Your task to perform on an android device: delete browsing data in the chrome app Image 0: 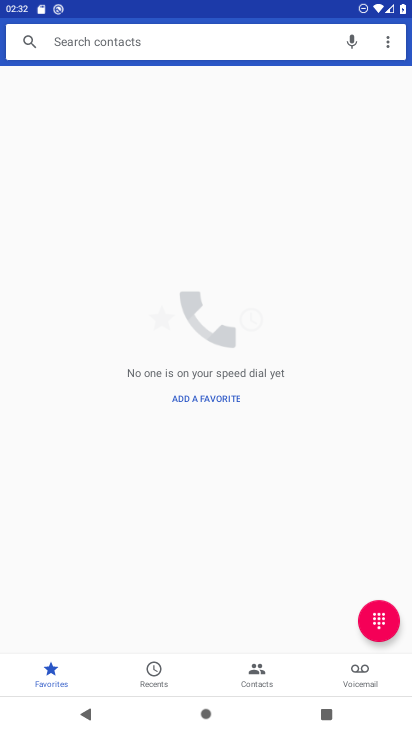
Step 0: press home button
Your task to perform on an android device: delete browsing data in the chrome app Image 1: 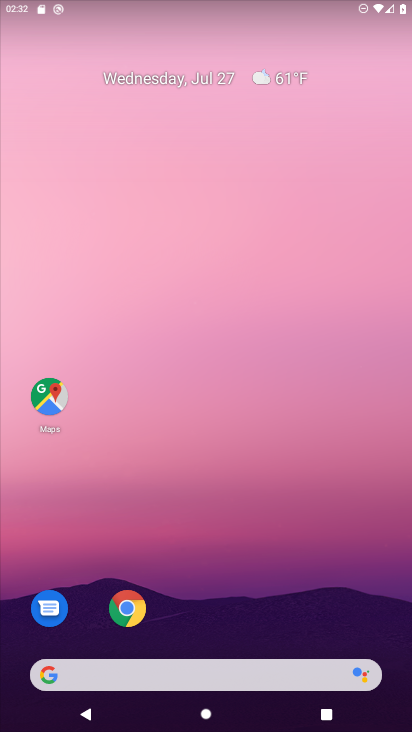
Step 1: drag from (241, 609) to (177, 50)
Your task to perform on an android device: delete browsing data in the chrome app Image 2: 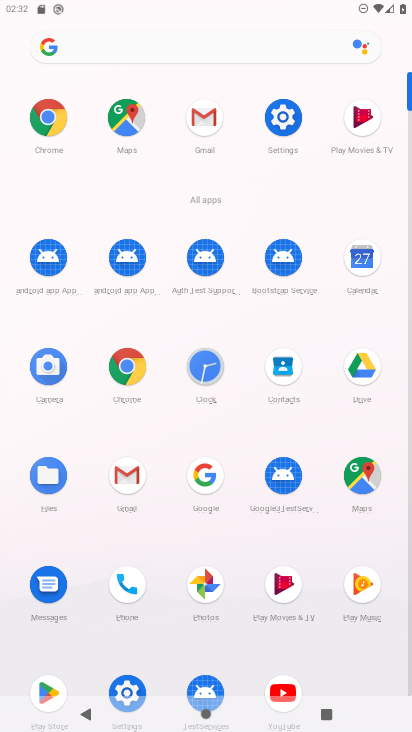
Step 2: click (38, 113)
Your task to perform on an android device: delete browsing data in the chrome app Image 3: 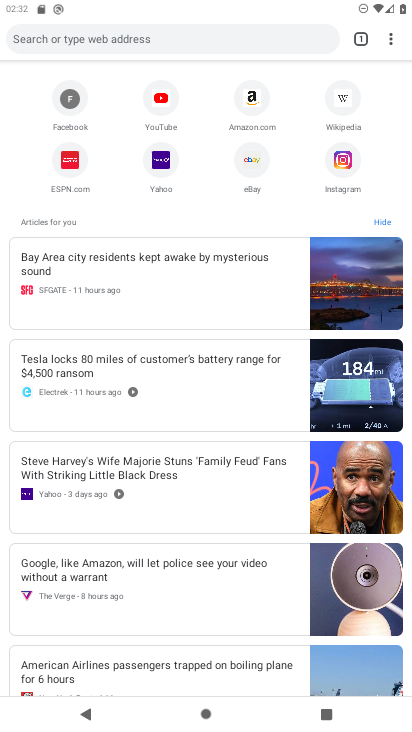
Step 3: click (396, 45)
Your task to perform on an android device: delete browsing data in the chrome app Image 4: 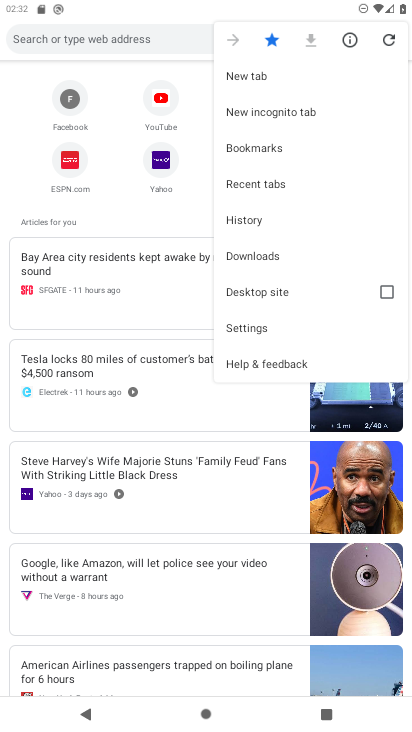
Step 4: click (288, 219)
Your task to perform on an android device: delete browsing data in the chrome app Image 5: 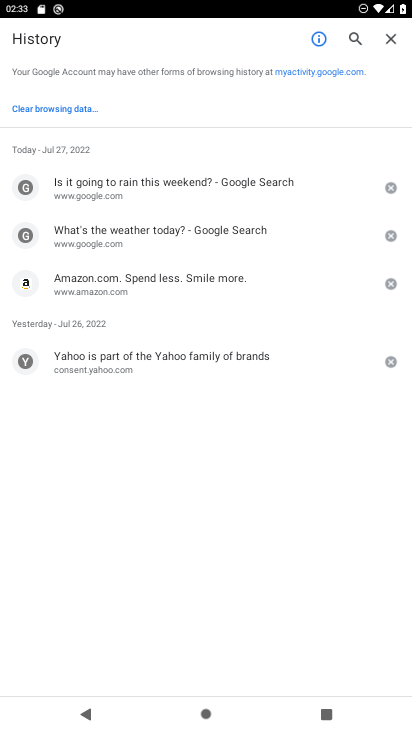
Step 5: click (34, 111)
Your task to perform on an android device: delete browsing data in the chrome app Image 6: 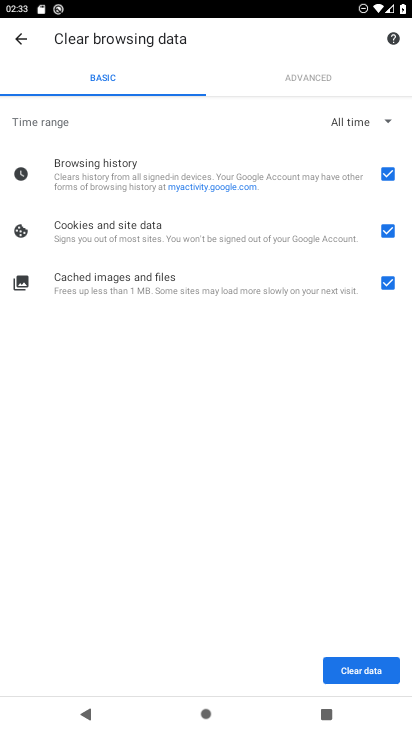
Step 6: click (368, 673)
Your task to perform on an android device: delete browsing data in the chrome app Image 7: 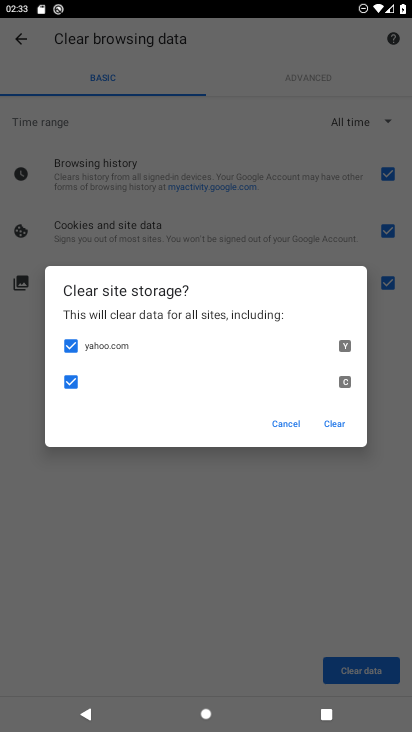
Step 7: click (321, 417)
Your task to perform on an android device: delete browsing data in the chrome app Image 8: 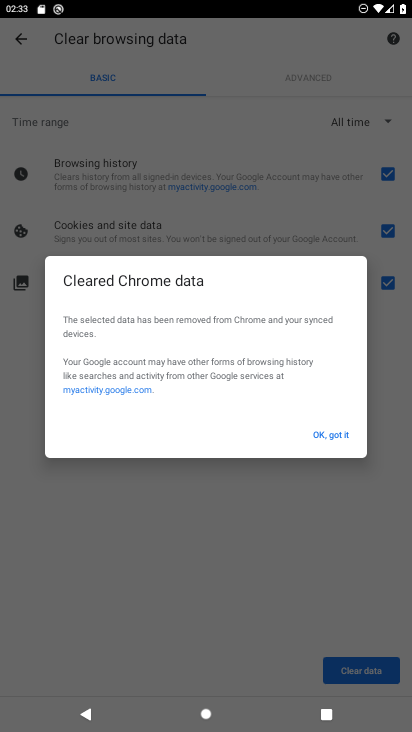
Step 8: click (326, 434)
Your task to perform on an android device: delete browsing data in the chrome app Image 9: 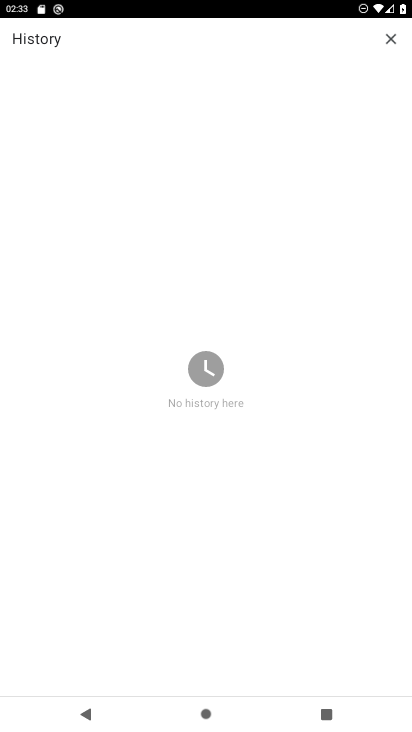
Step 9: task complete